Your task to perform on an android device: Open Amazon Image 0: 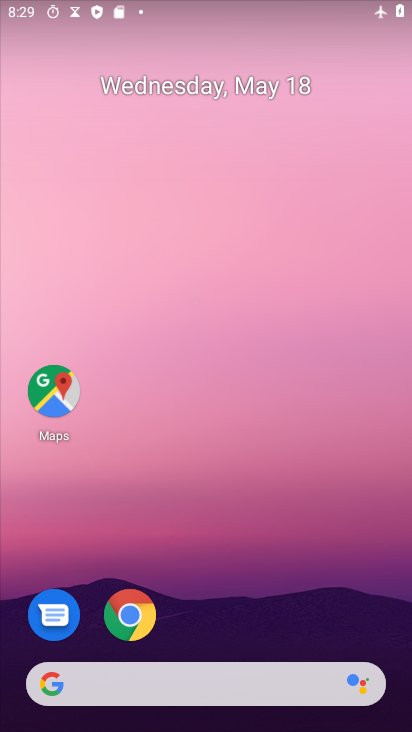
Step 0: click (119, 607)
Your task to perform on an android device: Open Amazon Image 1: 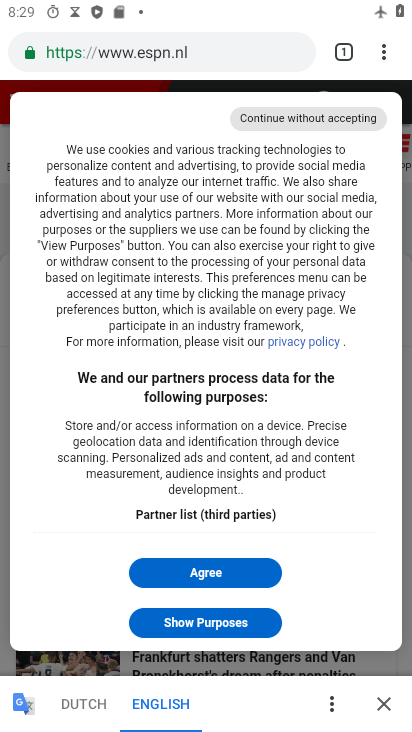
Step 1: click (343, 46)
Your task to perform on an android device: Open Amazon Image 2: 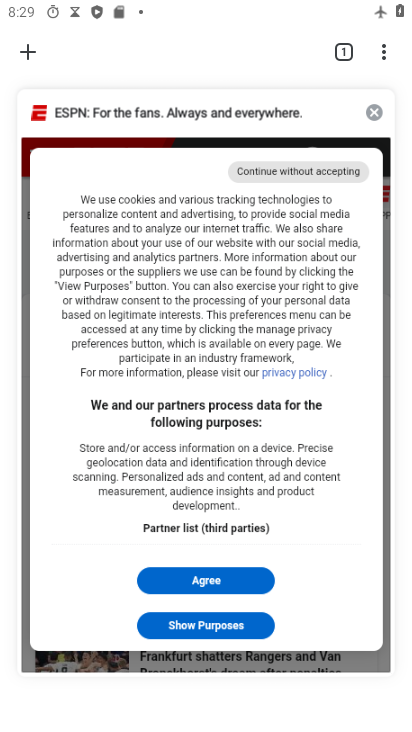
Step 2: click (30, 46)
Your task to perform on an android device: Open Amazon Image 3: 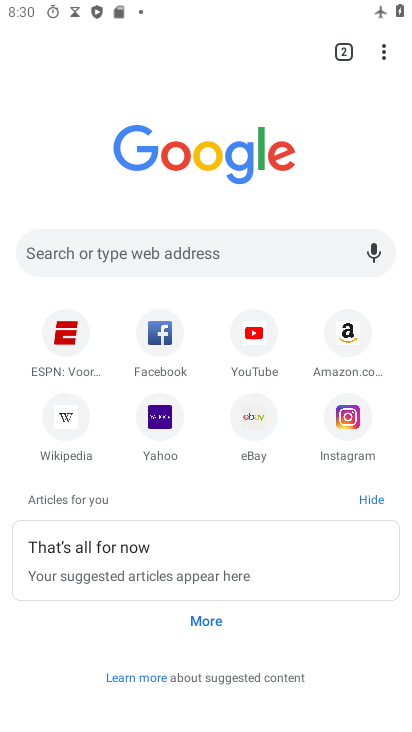
Step 3: click (336, 329)
Your task to perform on an android device: Open Amazon Image 4: 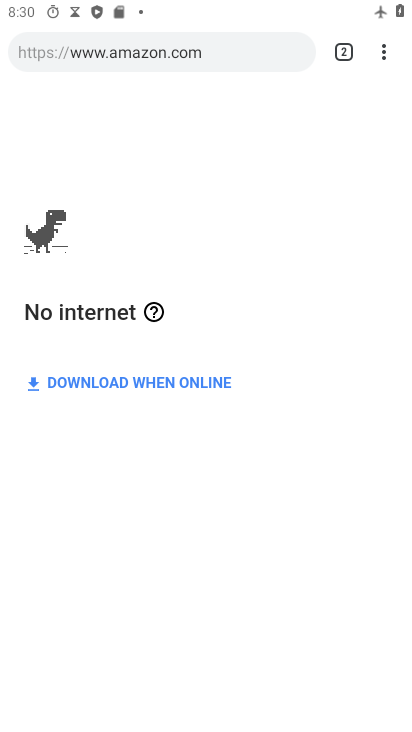
Step 4: drag from (340, 13) to (336, 358)
Your task to perform on an android device: Open Amazon Image 5: 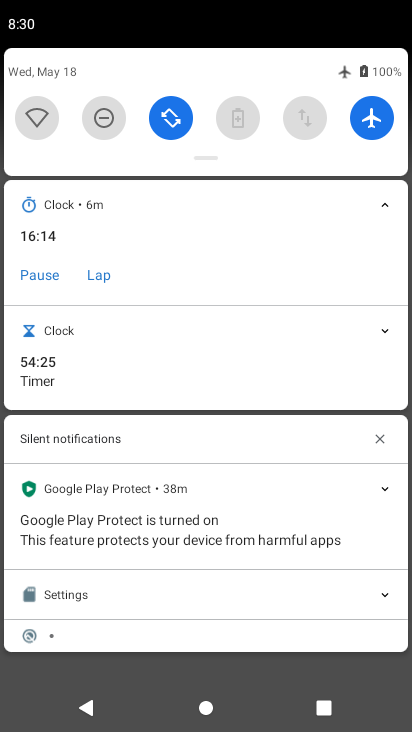
Step 5: click (376, 114)
Your task to perform on an android device: Open Amazon Image 6: 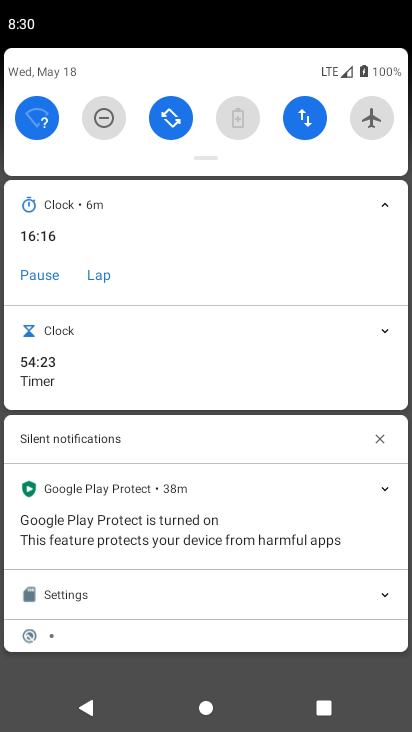
Step 6: task complete